Your task to perform on an android device: turn off javascript in the chrome app Image 0: 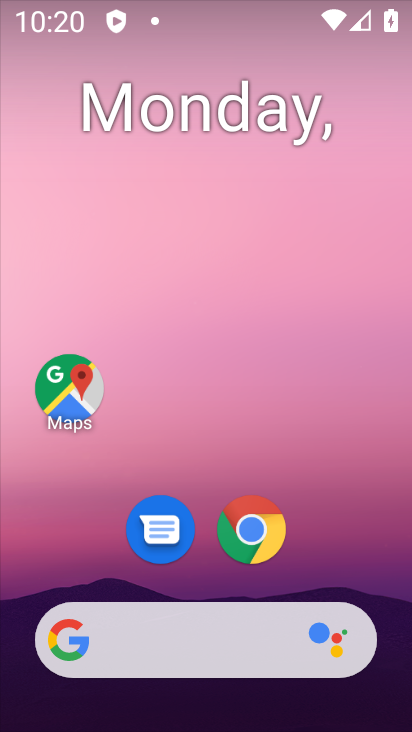
Step 0: click (249, 521)
Your task to perform on an android device: turn off javascript in the chrome app Image 1: 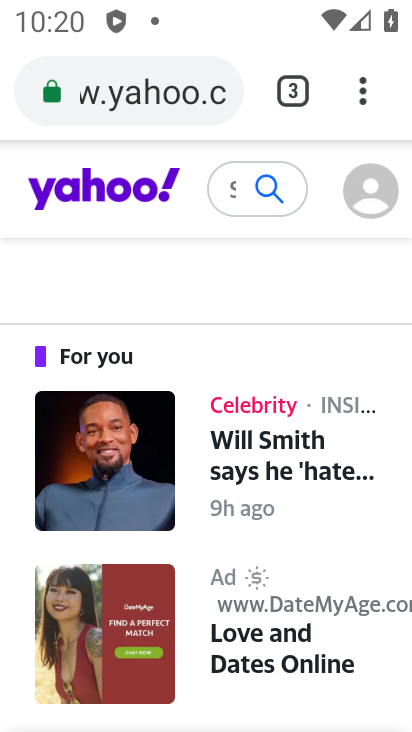
Step 1: click (361, 92)
Your task to perform on an android device: turn off javascript in the chrome app Image 2: 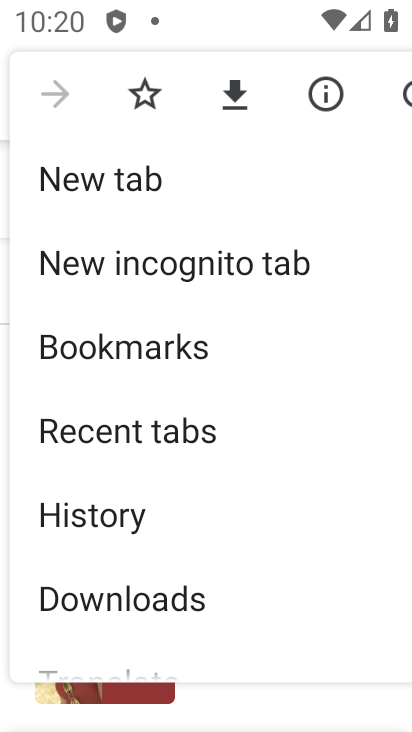
Step 2: drag from (282, 451) to (202, 135)
Your task to perform on an android device: turn off javascript in the chrome app Image 3: 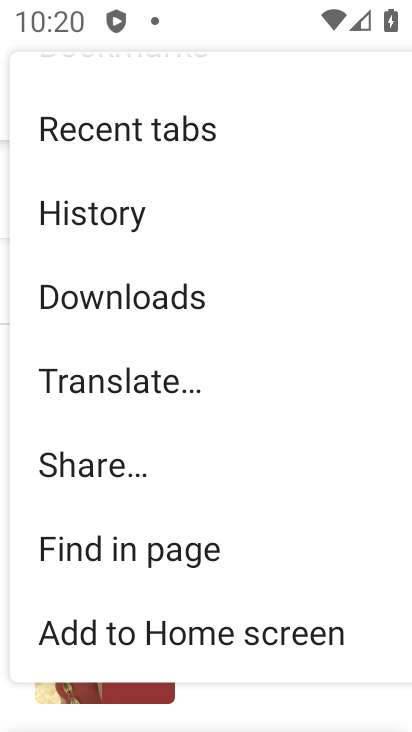
Step 3: drag from (233, 461) to (193, 134)
Your task to perform on an android device: turn off javascript in the chrome app Image 4: 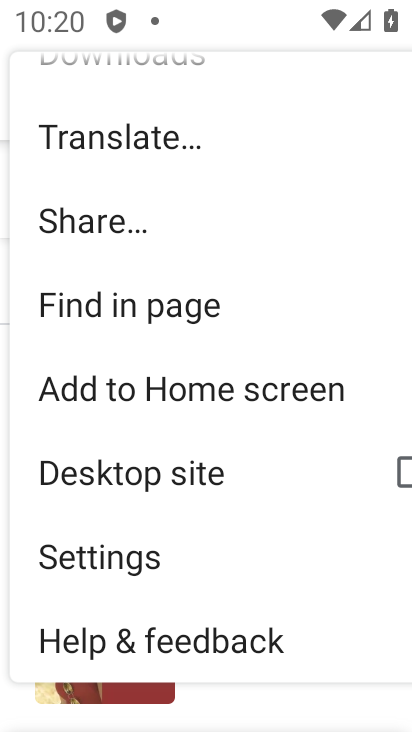
Step 4: click (103, 551)
Your task to perform on an android device: turn off javascript in the chrome app Image 5: 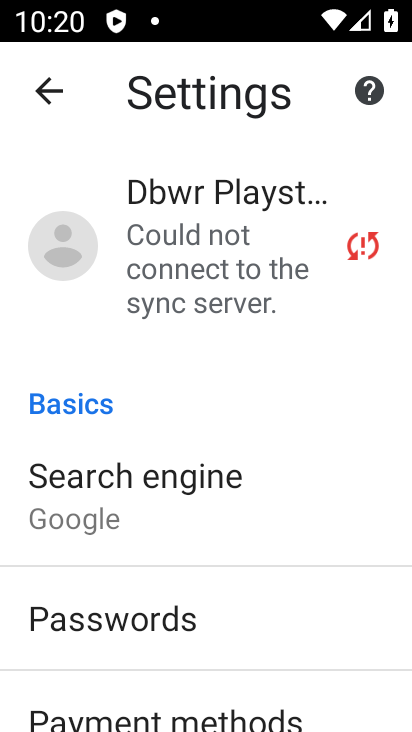
Step 5: drag from (264, 553) to (168, 68)
Your task to perform on an android device: turn off javascript in the chrome app Image 6: 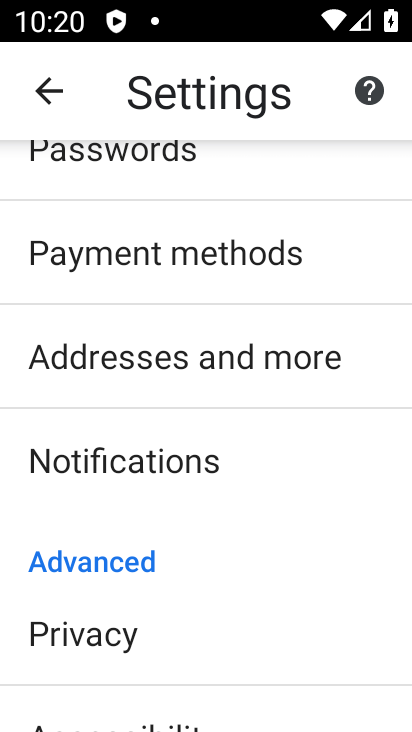
Step 6: drag from (233, 518) to (196, 160)
Your task to perform on an android device: turn off javascript in the chrome app Image 7: 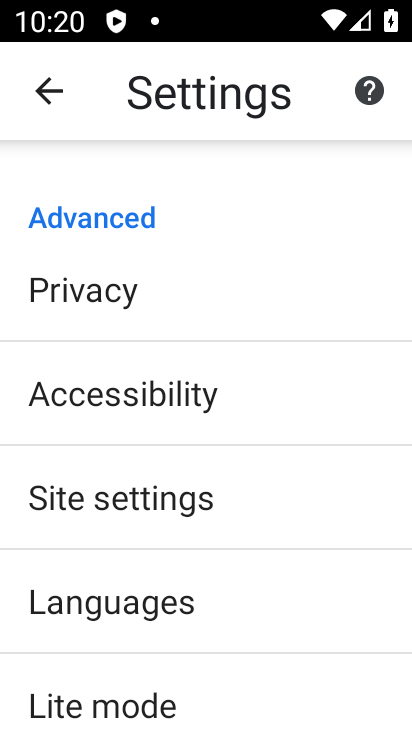
Step 7: click (139, 490)
Your task to perform on an android device: turn off javascript in the chrome app Image 8: 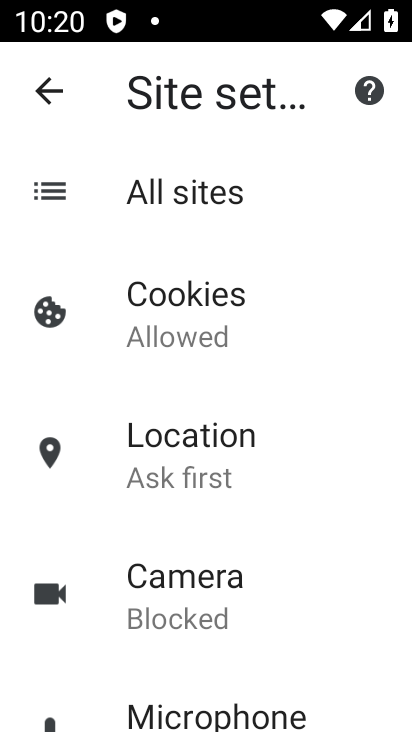
Step 8: drag from (310, 583) to (272, 223)
Your task to perform on an android device: turn off javascript in the chrome app Image 9: 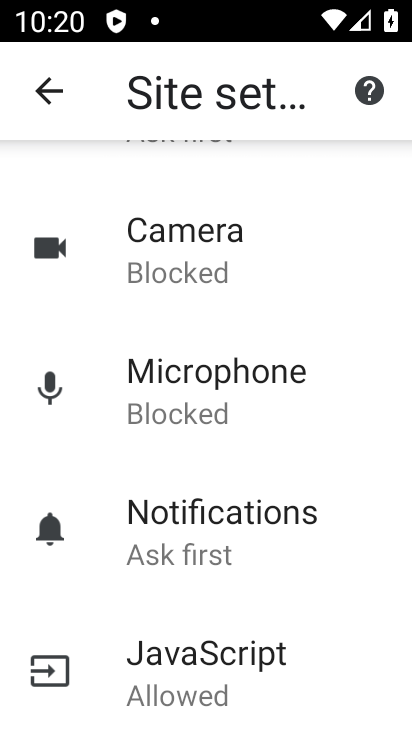
Step 9: click (208, 646)
Your task to perform on an android device: turn off javascript in the chrome app Image 10: 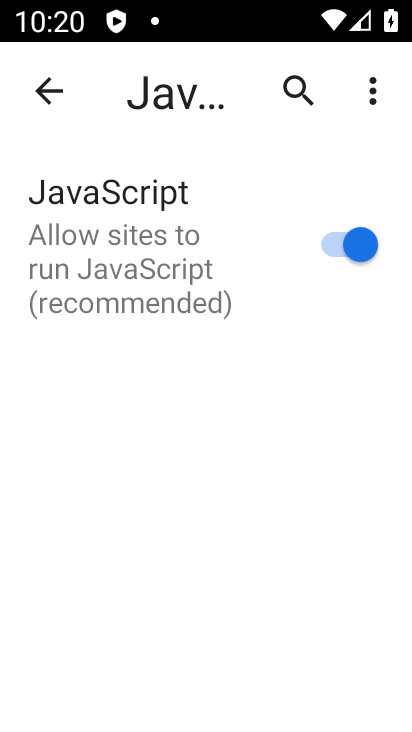
Step 10: click (354, 231)
Your task to perform on an android device: turn off javascript in the chrome app Image 11: 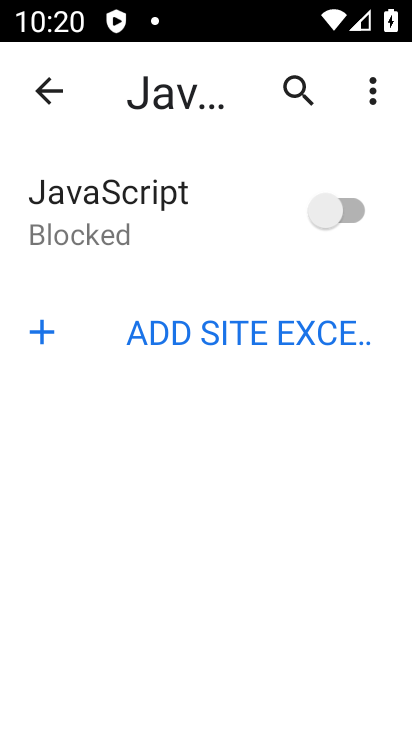
Step 11: task complete